Your task to perform on an android device: Go to battery settings Image 0: 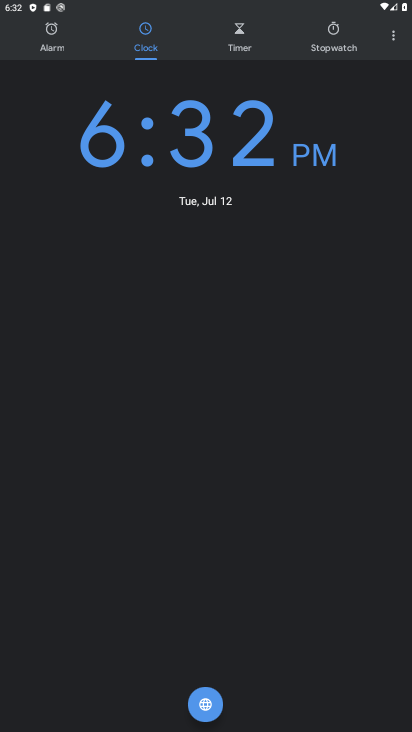
Step 0: press home button
Your task to perform on an android device: Go to battery settings Image 1: 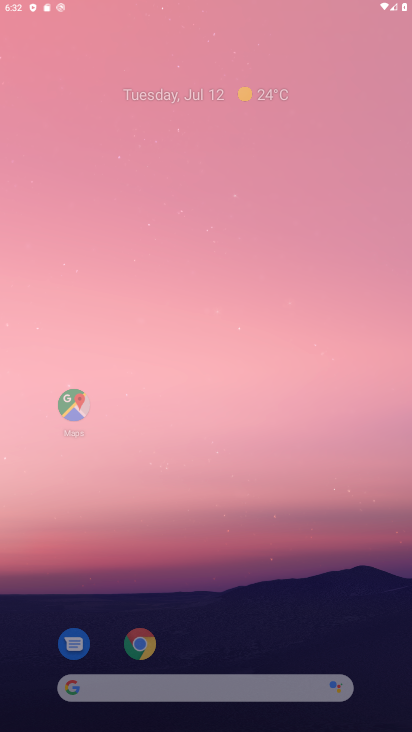
Step 1: drag from (357, 670) to (286, 0)
Your task to perform on an android device: Go to battery settings Image 2: 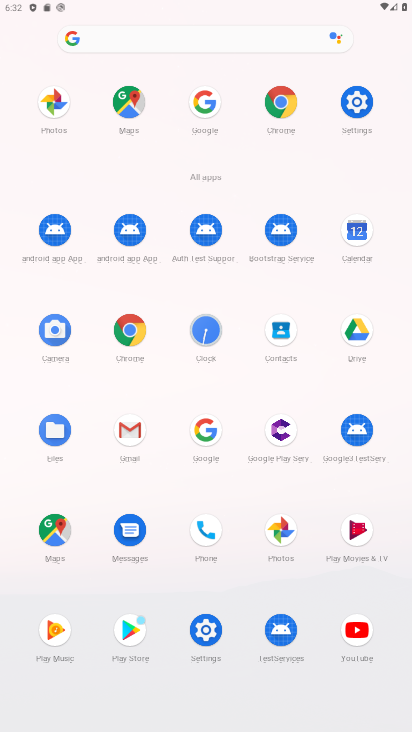
Step 2: click (351, 106)
Your task to perform on an android device: Go to battery settings Image 3: 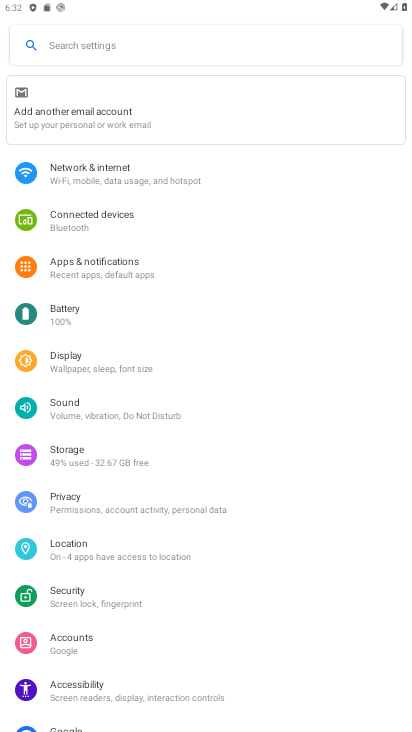
Step 3: click (56, 327)
Your task to perform on an android device: Go to battery settings Image 4: 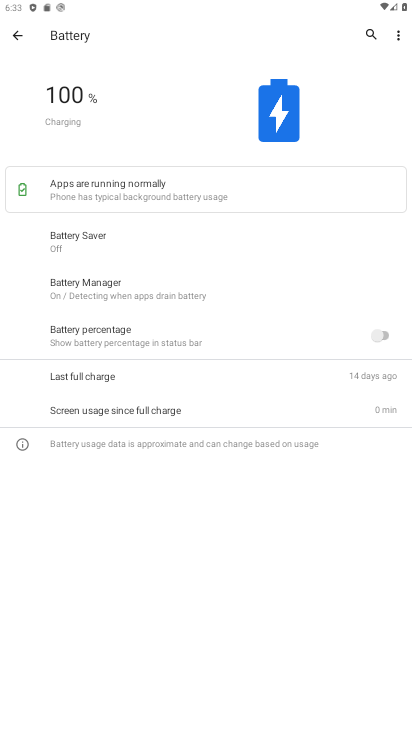
Step 4: task complete